Your task to perform on an android device: Search for usb-a to usb-b on costco.com, select the first entry, add it to the cart, then select checkout. Image 0: 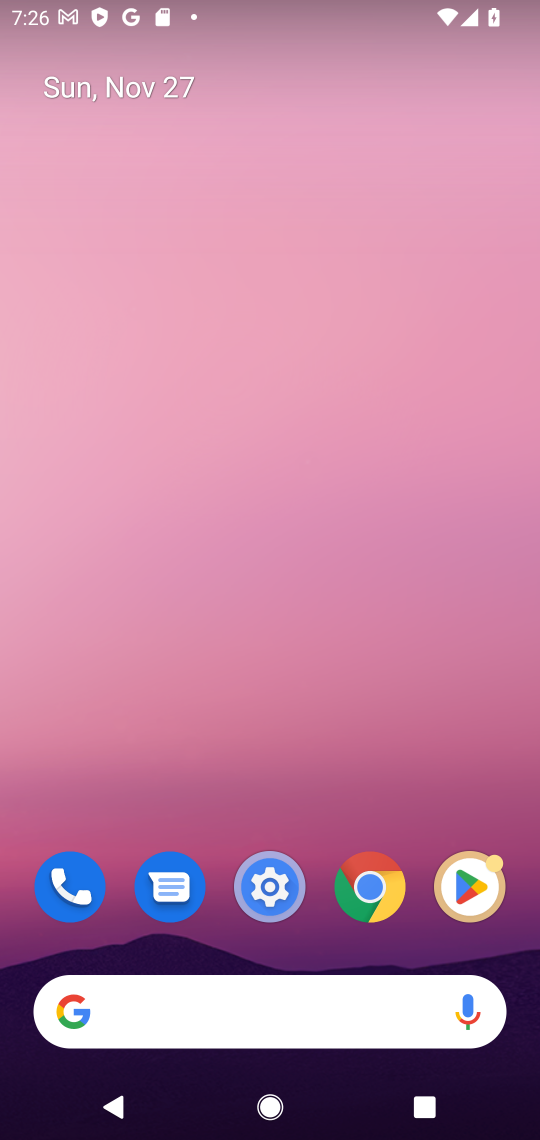
Step 0: press home button
Your task to perform on an android device: Search for usb-a to usb-b on costco.com, select the first entry, add it to the cart, then select checkout. Image 1: 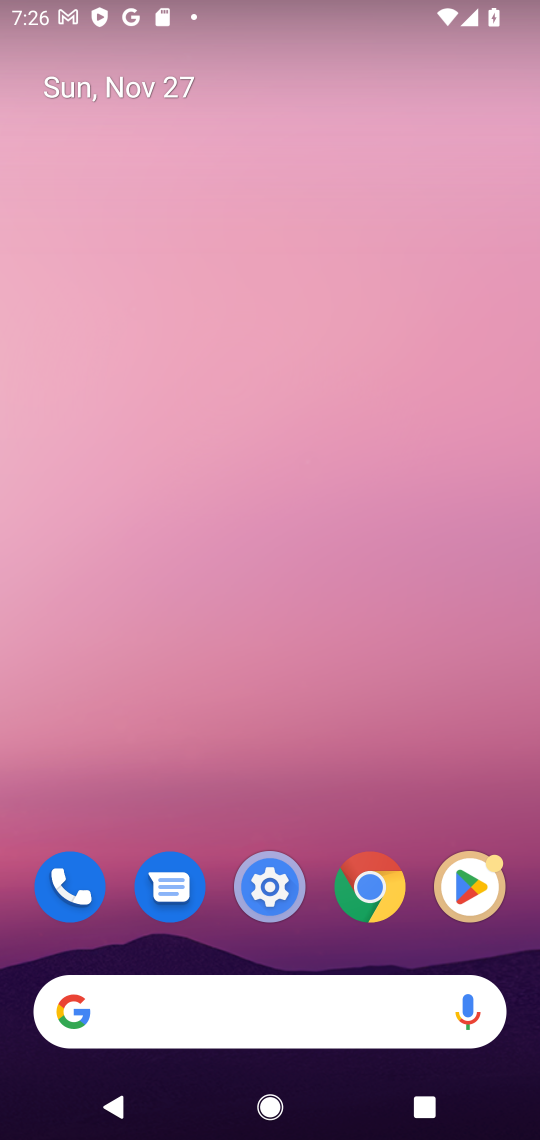
Step 1: click (242, 1029)
Your task to perform on an android device: Search for usb-a to usb-b on costco.com, select the first entry, add it to the cart, then select checkout. Image 2: 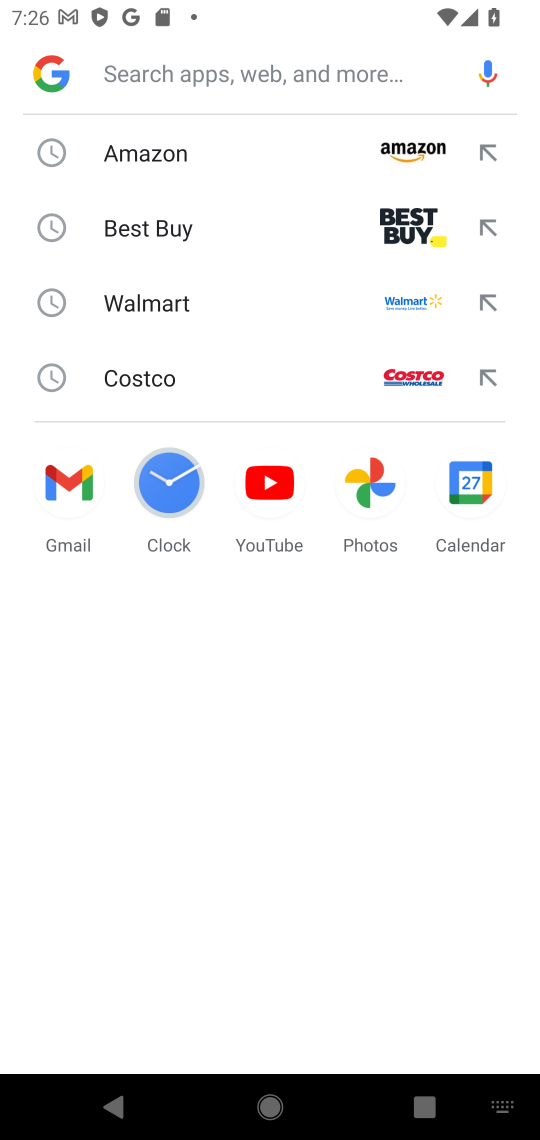
Step 2: click (243, 379)
Your task to perform on an android device: Search for usb-a to usb-b on costco.com, select the first entry, add it to the cart, then select checkout. Image 3: 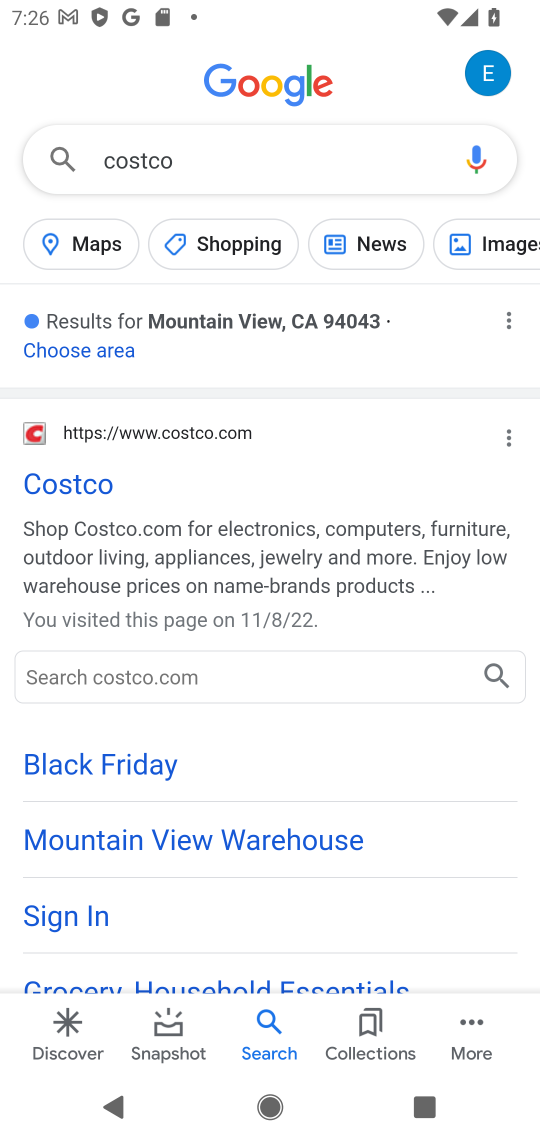
Step 3: click (51, 460)
Your task to perform on an android device: Search for usb-a to usb-b on costco.com, select the first entry, add it to the cart, then select checkout. Image 4: 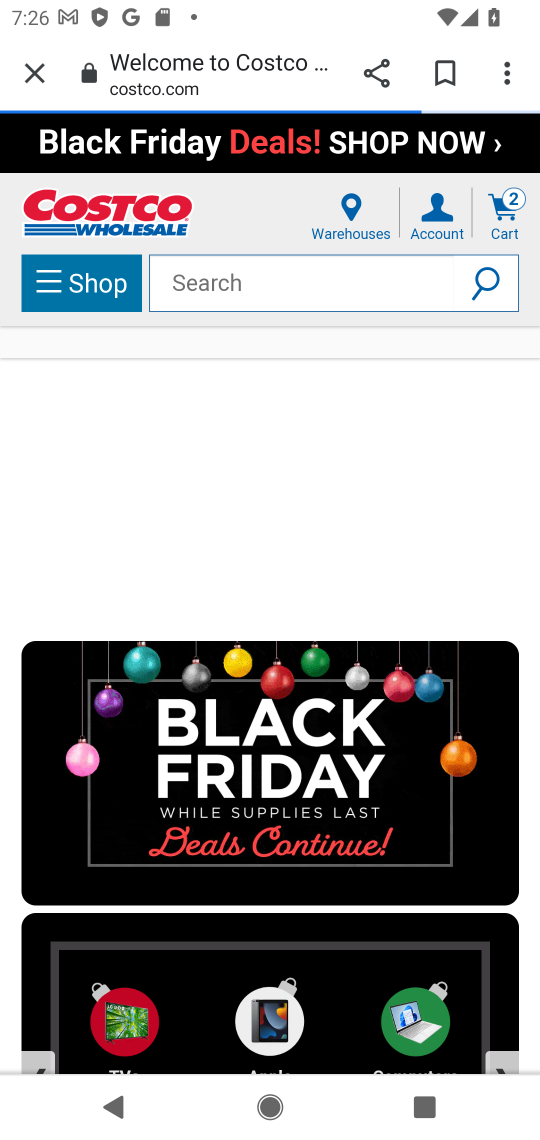
Step 4: click (197, 283)
Your task to perform on an android device: Search for usb-a to usb-b on costco.com, select the first entry, add it to the cart, then select checkout. Image 5: 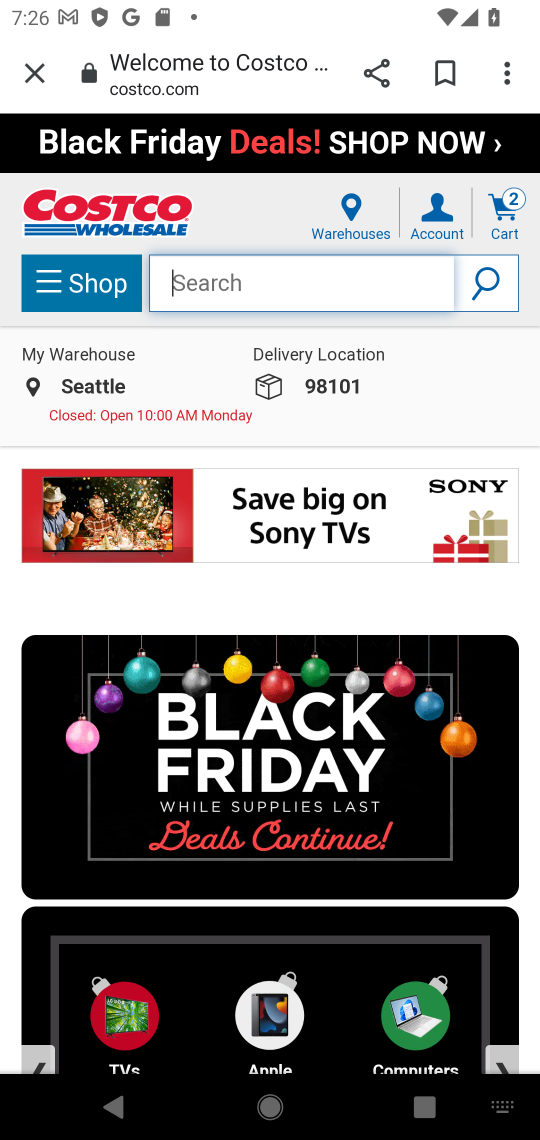
Step 5: type "usb-a to usb-b"
Your task to perform on an android device: Search for usb-a to usb-b on costco.com, select the first entry, add it to the cart, then select checkout. Image 6: 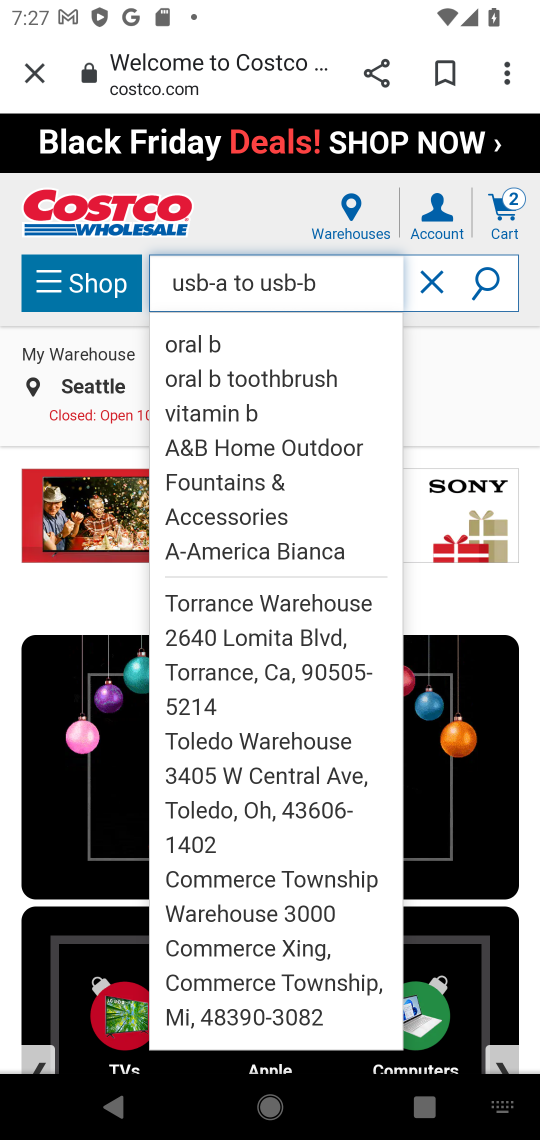
Step 6: click (478, 278)
Your task to perform on an android device: Search for usb-a to usb-b on costco.com, select the first entry, add it to the cart, then select checkout. Image 7: 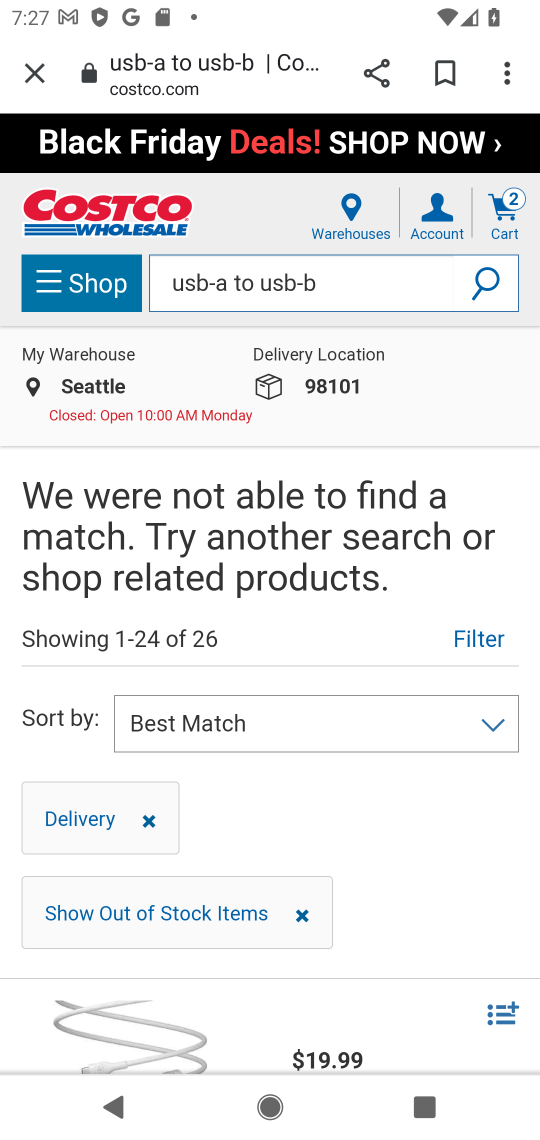
Step 7: drag from (407, 830) to (318, 475)
Your task to perform on an android device: Search for usb-a to usb-b on costco.com, select the first entry, add it to the cart, then select checkout. Image 8: 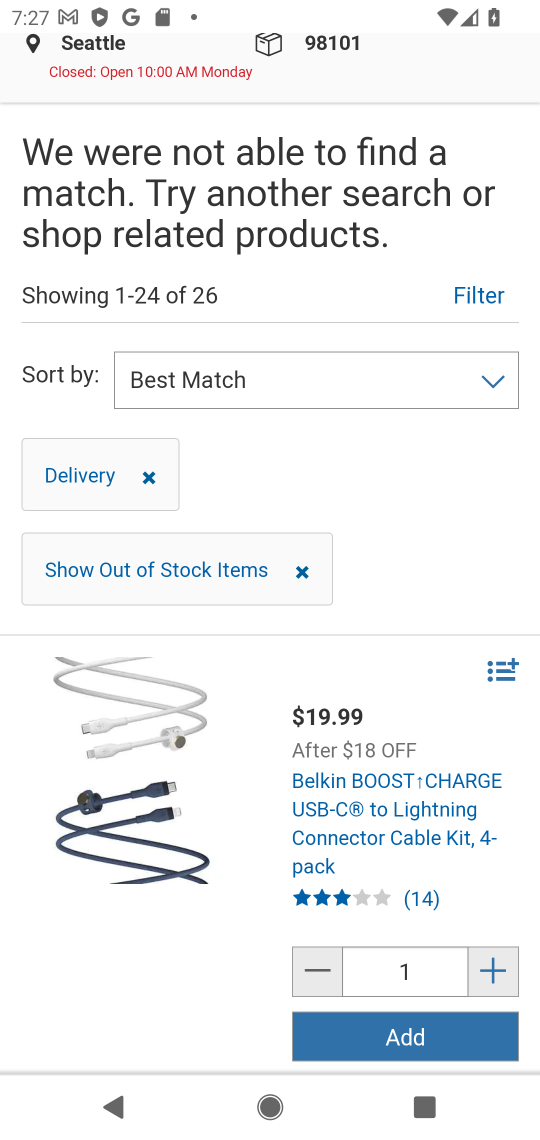
Step 8: click (489, 1029)
Your task to perform on an android device: Search for usb-a to usb-b on costco.com, select the first entry, add it to the cart, then select checkout. Image 9: 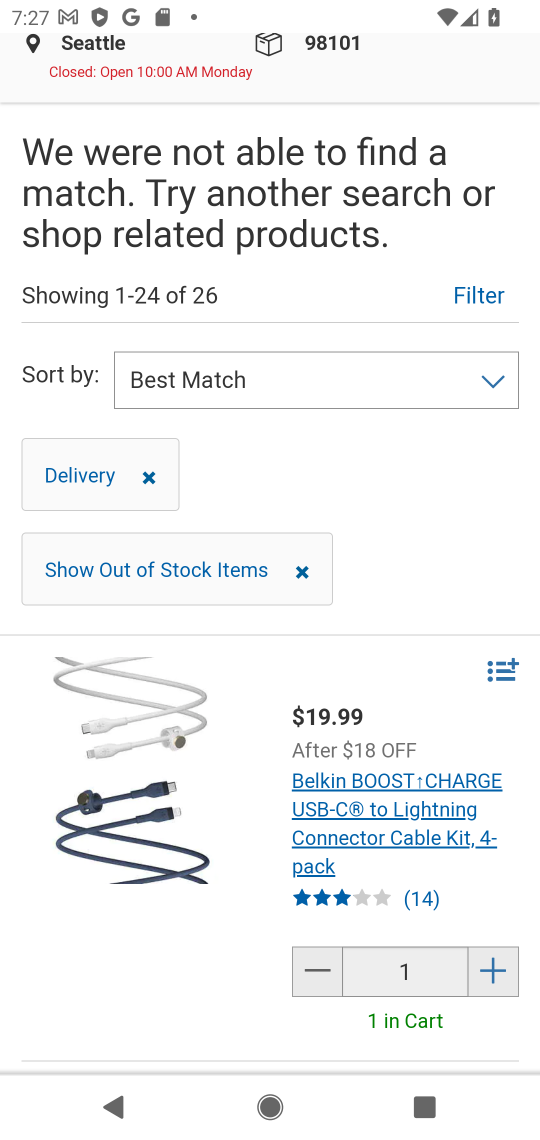
Step 9: task complete